Your task to perform on an android device: turn off data saver in the chrome app Image 0: 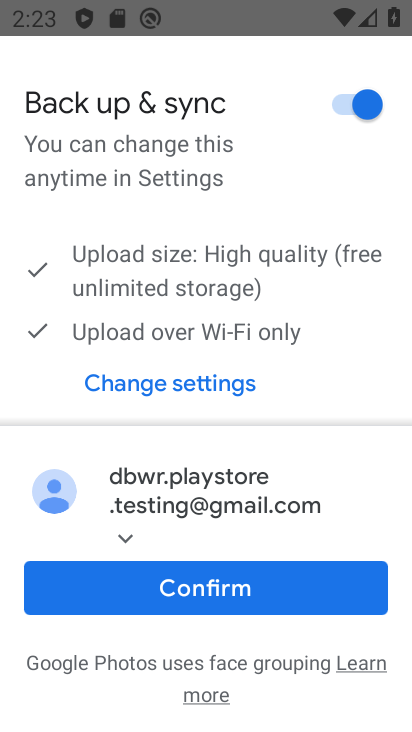
Step 0: press home button
Your task to perform on an android device: turn off data saver in the chrome app Image 1: 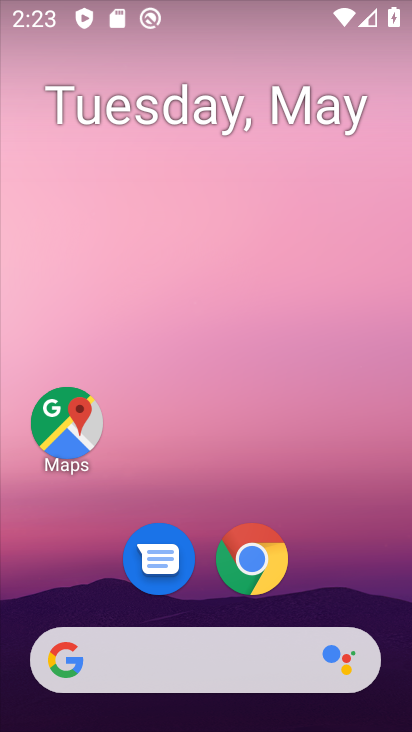
Step 1: click (246, 556)
Your task to perform on an android device: turn off data saver in the chrome app Image 2: 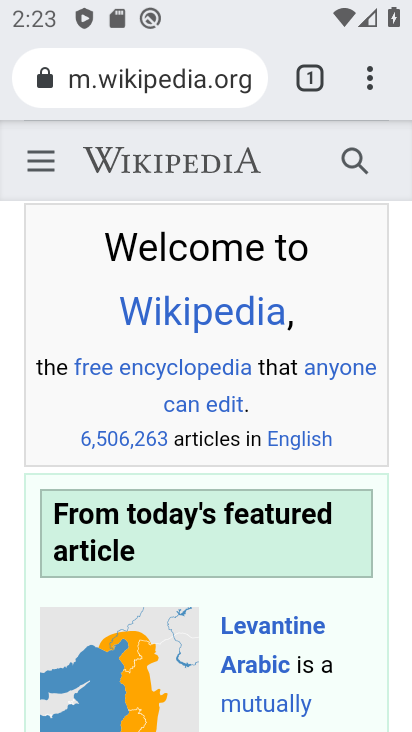
Step 2: click (368, 74)
Your task to perform on an android device: turn off data saver in the chrome app Image 3: 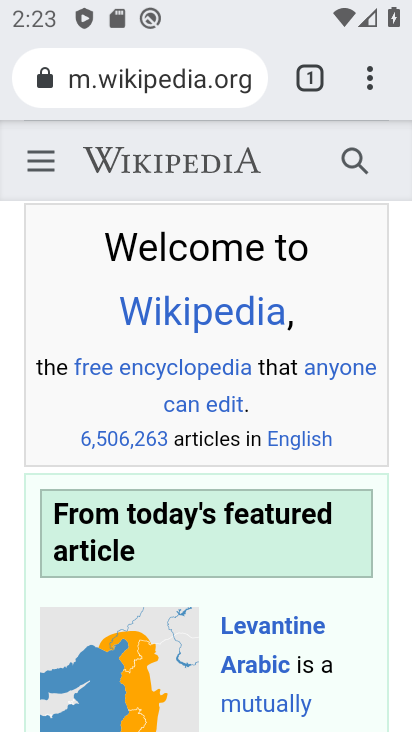
Step 3: drag from (361, 82) to (122, 628)
Your task to perform on an android device: turn off data saver in the chrome app Image 4: 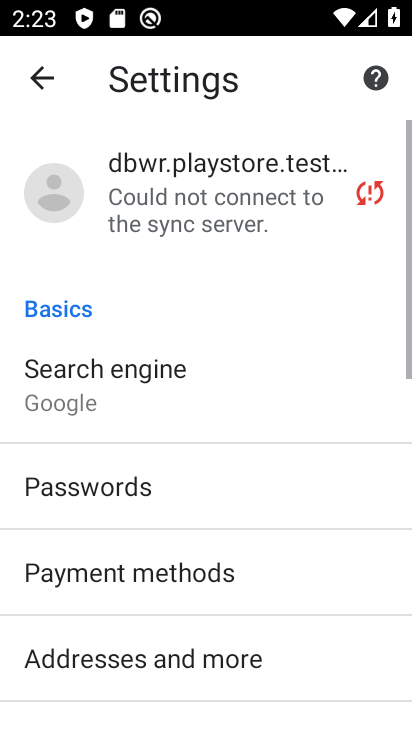
Step 4: drag from (143, 631) to (183, 319)
Your task to perform on an android device: turn off data saver in the chrome app Image 5: 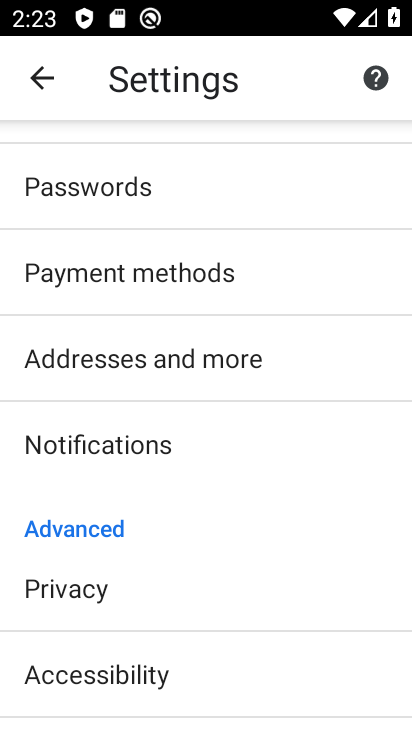
Step 5: drag from (168, 612) to (196, 350)
Your task to perform on an android device: turn off data saver in the chrome app Image 6: 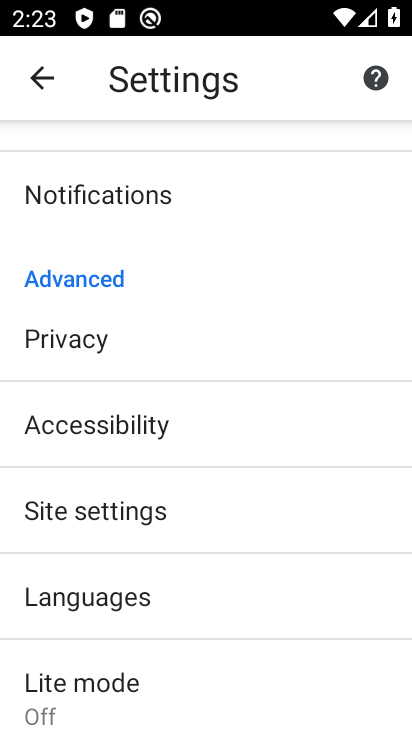
Step 6: click (118, 672)
Your task to perform on an android device: turn off data saver in the chrome app Image 7: 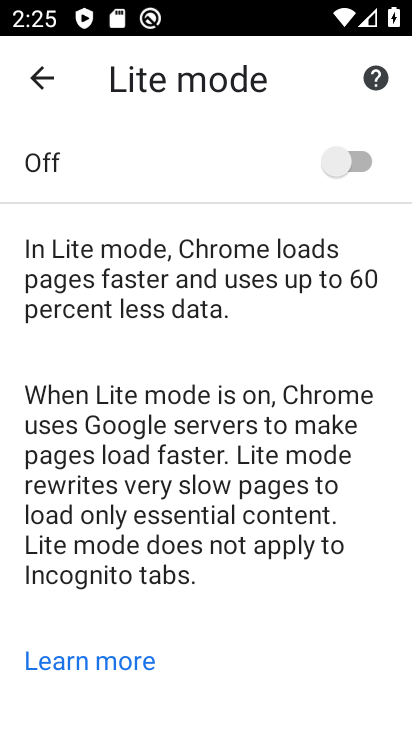
Step 7: task complete